Your task to perform on an android device: What's the weather going to be this weekend? Image 0: 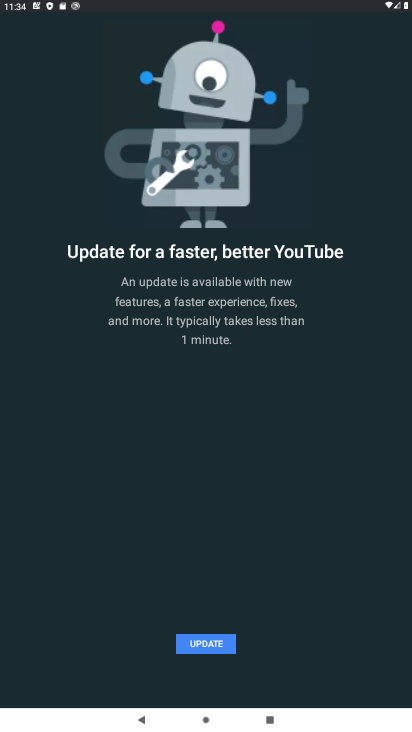
Step 0: press home button
Your task to perform on an android device: What's the weather going to be this weekend? Image 1: 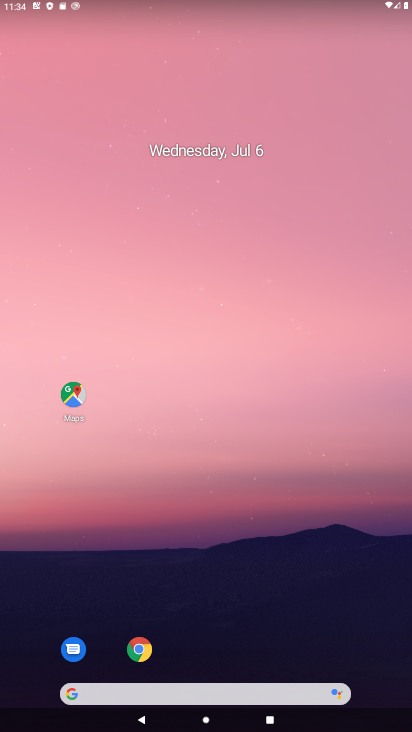
Step 1: click (147, 688)
Your task to perform on an android device: What's the weather going to be this weekend? Image 2: 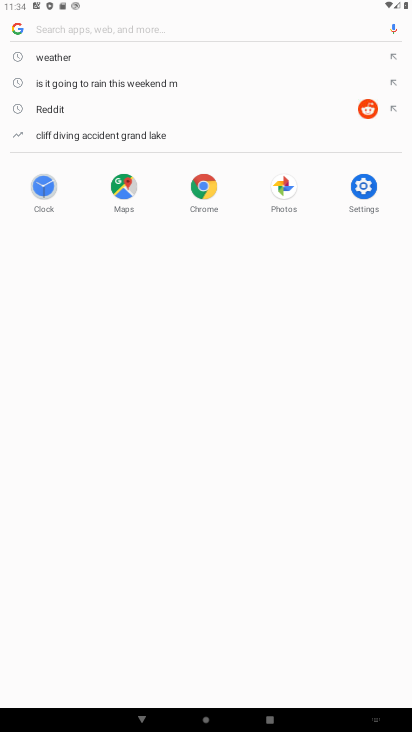
Step 2: click (82, 27)
Your task to perform on an android device: What's the weather going to be this weekend? Image 3: 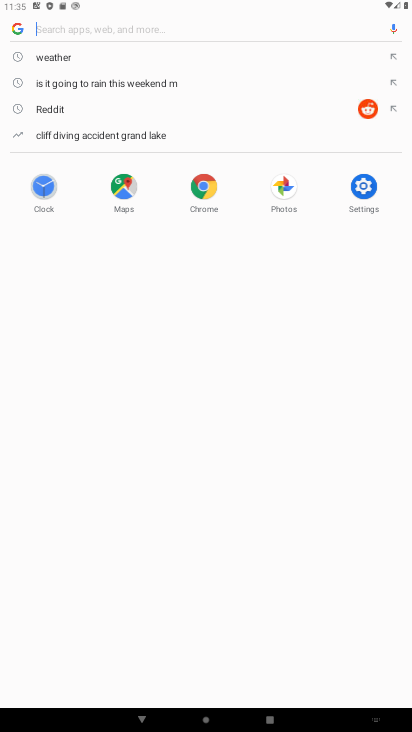
Step 3: click (63, 26)
Your task to perform on an android device: What's the weather going to be this weekend? Image 4: 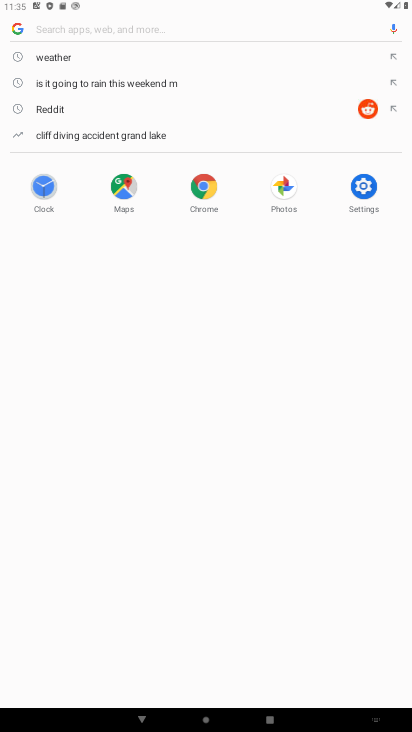
Step 4: type "What's the weather going to be this weekend?"
Your task to perform on an android device: What's the weather going to be this weekend? Image 5: 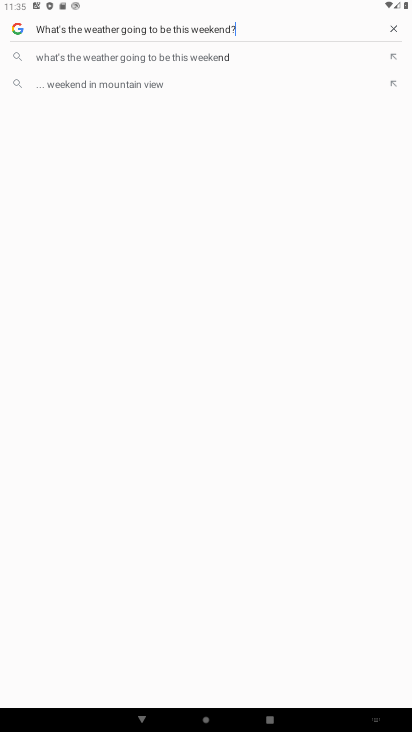
Step 5: type ""
Your task to perform on an android device: What's the weather going to be this weekend? Image 6: 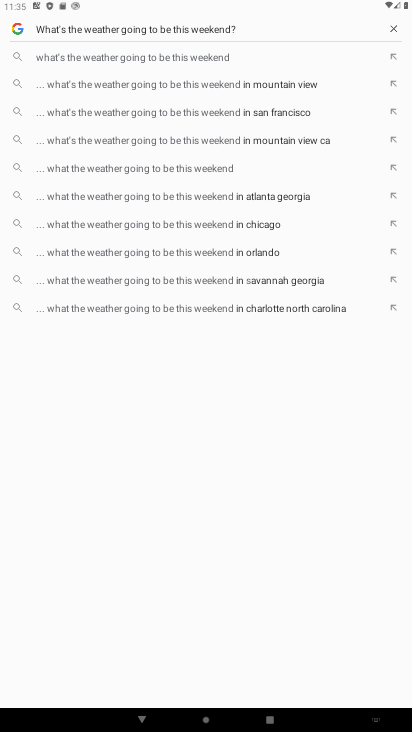
Step 6: type ""
Your task to perform on an android device: What's the weather going to be this weekend? Image 7: 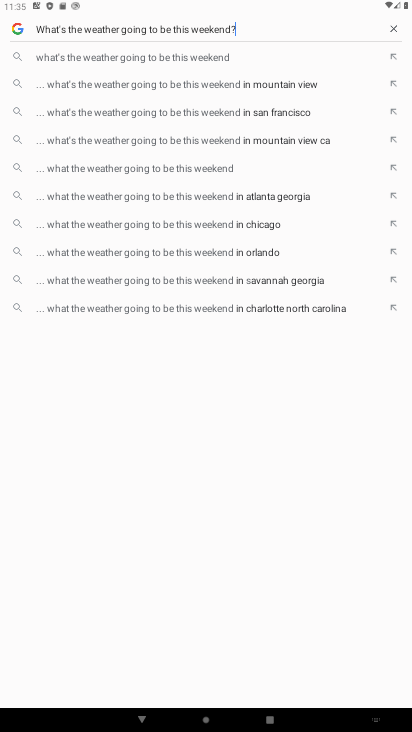
Step 7: type ""
Your task to perform on an android device: What's the weather going to be this weekend? Image 8: 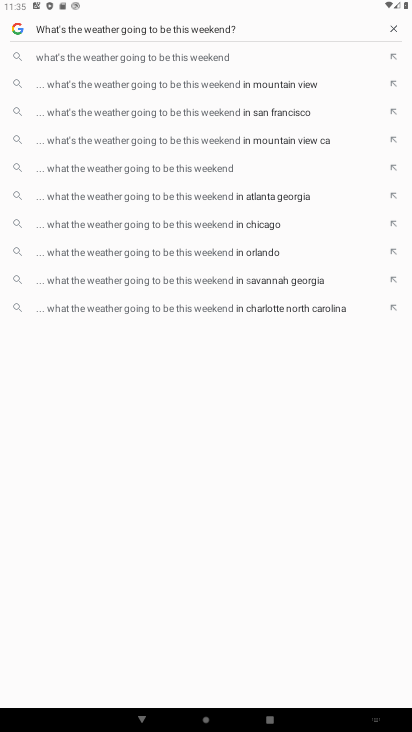
Step 8: type ""
Your task to perform on an android device: What's the weather going to be this weekend? Image 9: 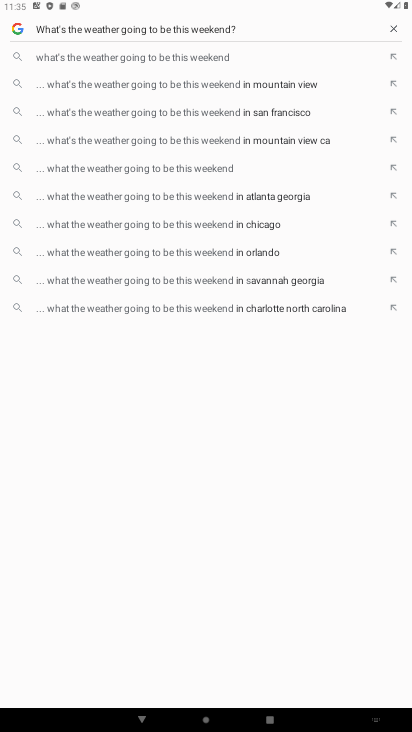
Step 9: click (148, 57)
Your task to perform on an android device: What's the weather going to be this weekend? Image 10: 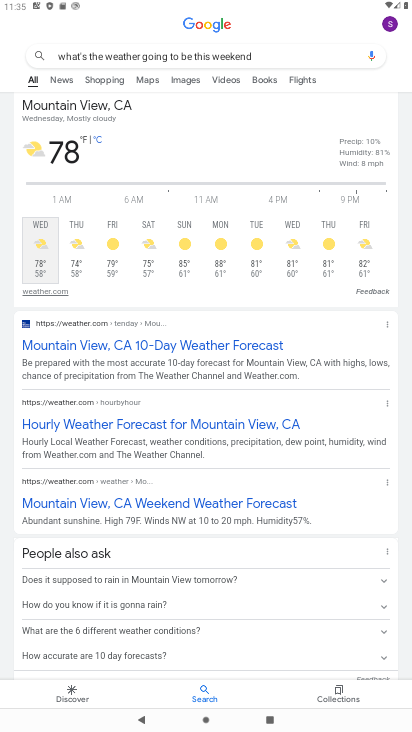
Step 10: task complete